Your task to perform on an android device: set default search engine in the chrome app Image 0: 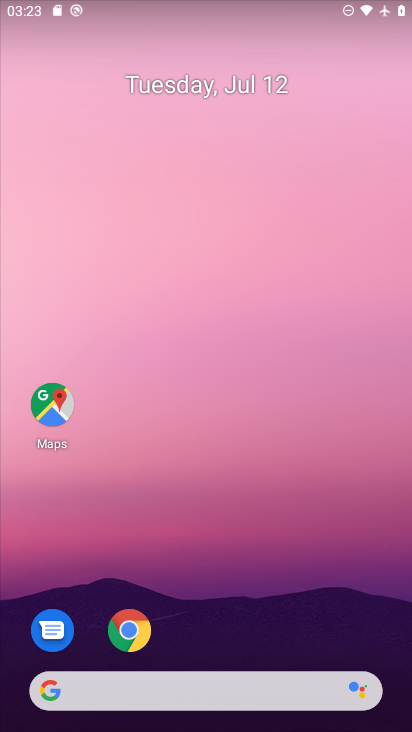
Step 0: click (127, 633)
Your task to perform on an android device: set default search engine in the chrome app Image 1: 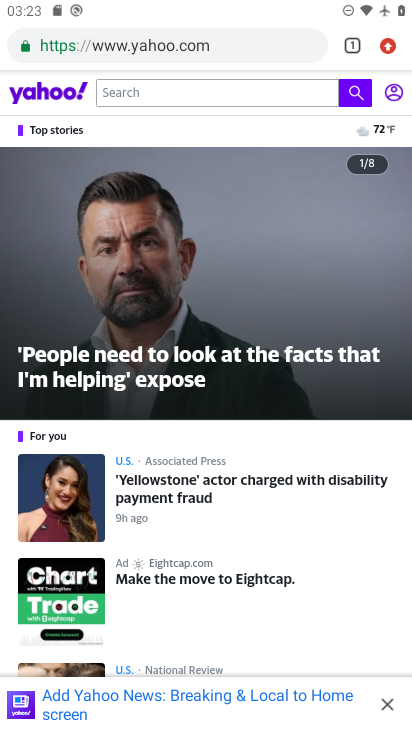
Step 1: click (385, 49)
Your task to perform on an android device: set default search engine in the chrome app Image 2: 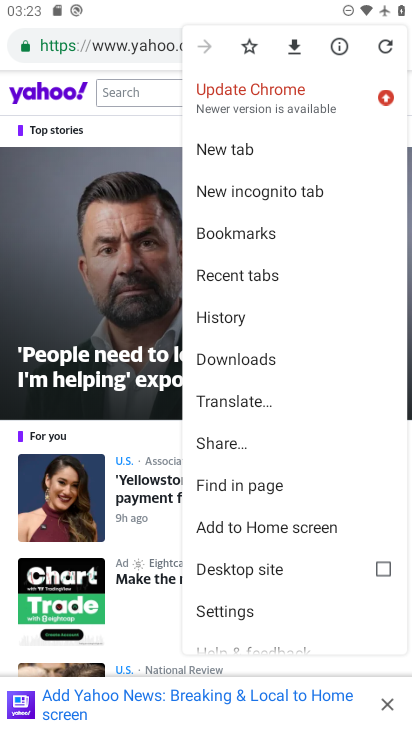
Step 2: click (234, 611)
Your task to perform on an android device: set default search engine in the chrome app Image 3: 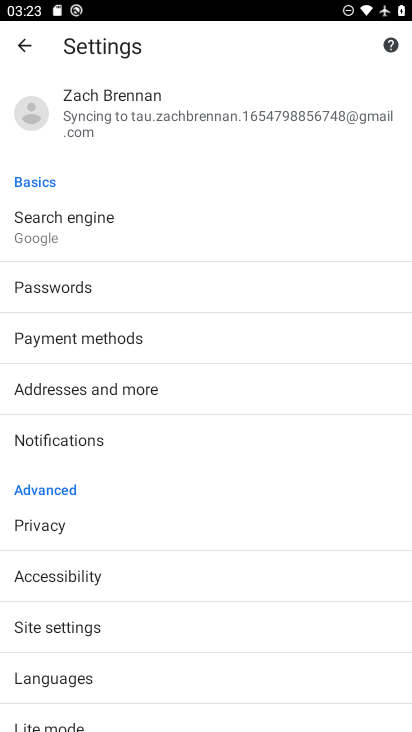
Step 3: click (32, 225)
Your task to perform on an android device: set default search engine in the chrome app Image 4: 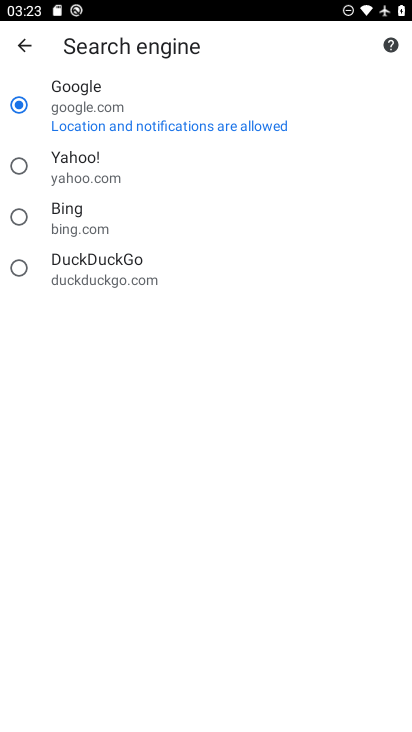
Step 4: click (14, 162)
Your task to perform on an android device: set default search engine in the chrome app Image 5: 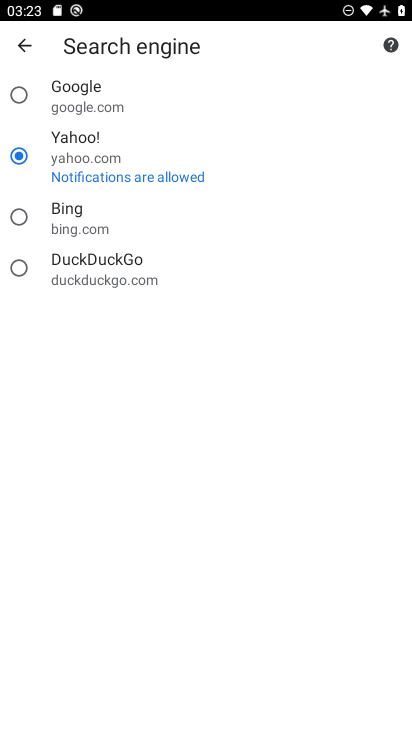
Step 5: task complete